Your task to perform on an android device: find which apps use the phone's location Image 0: 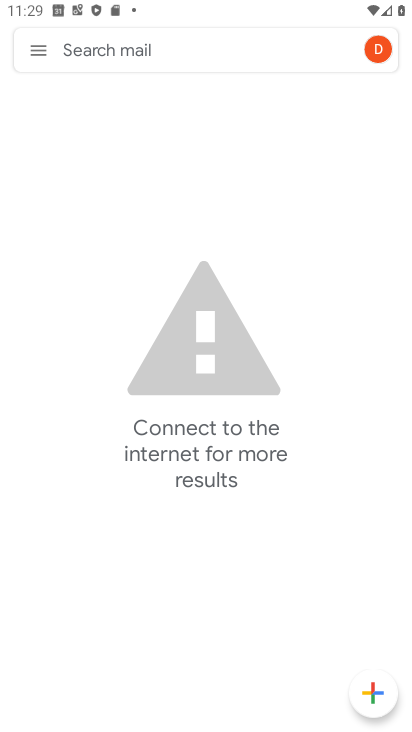
Step 0: press home button
Your task to perform on an android device: find which apps use the phone's location Image 1: 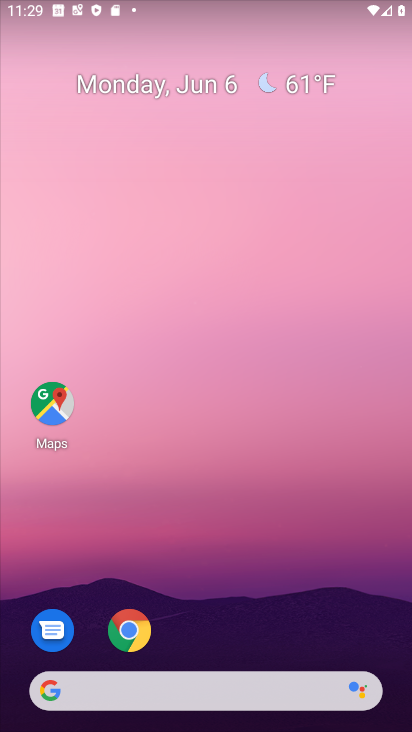
Step 1: drag from (263, 604) to (307, 143)
Your task to perform on an android device: find which apps use the phone's location Image 2: 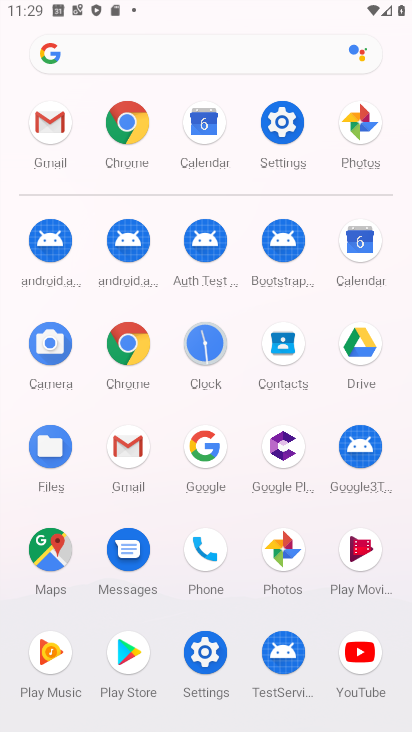
Step 2: click (206, 672)
Your task to perform on an android device: find which apps use the phone's location Image 3: 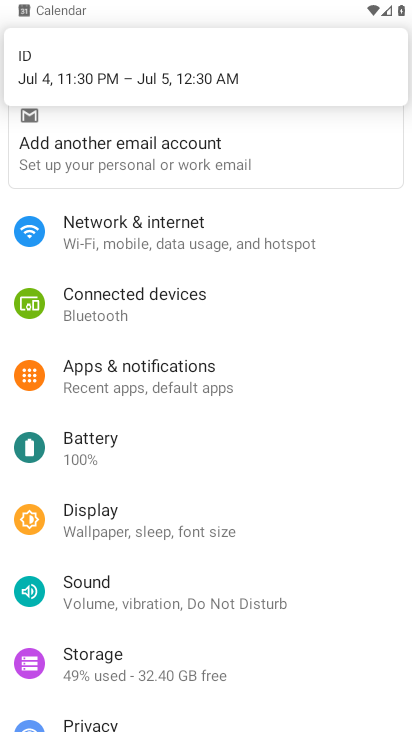
Step 3: drag from (278, 638) to (356, 379)
Your task to perform on an android device: find which apps use the phone's location Image 4: 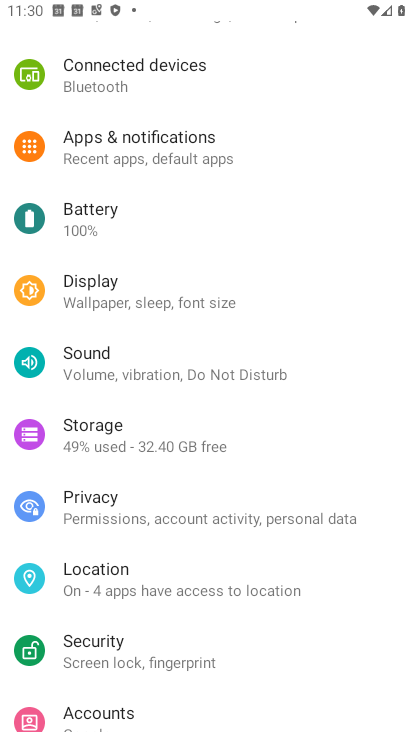
Step 4: click (256, 577)
Your task to perform on an android device: find which apps use the phone's location Image 5: 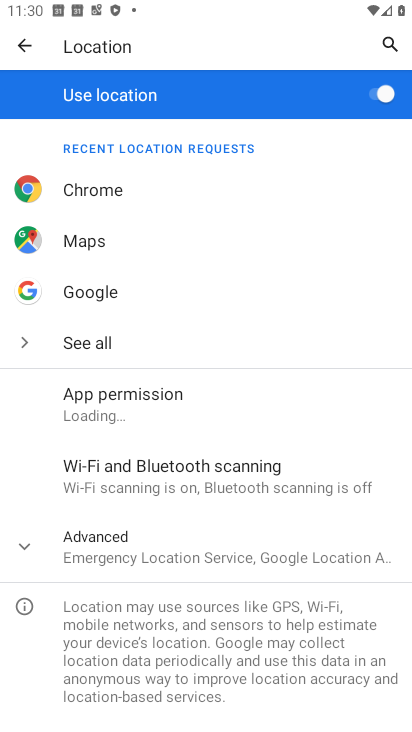
Step 5: task complete